Your task to perform on an android device: set an alarm Image 0: 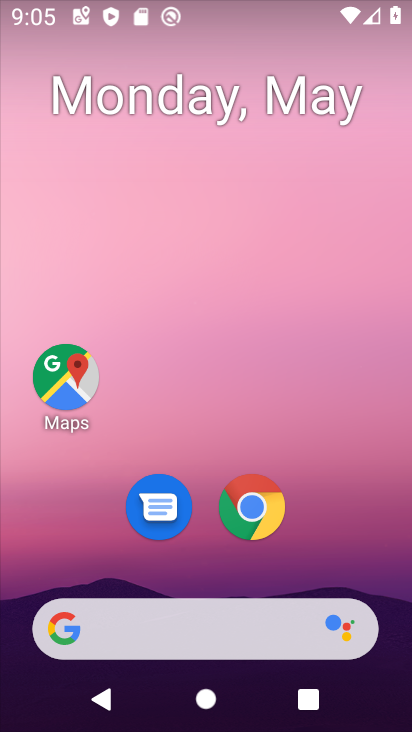
Step 0: drag from (228, 567) to (259, 60)
Your task to perform on an android device: set an alarm Image 1: 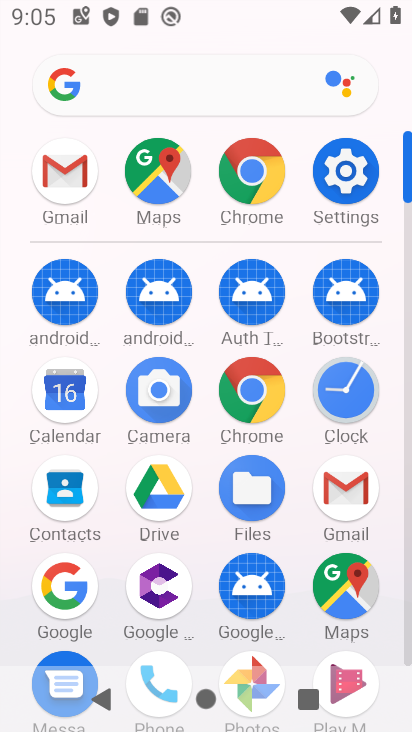
Step 1: click (342, 395)
Your task to perform on an android device: set an alarm Image 2: 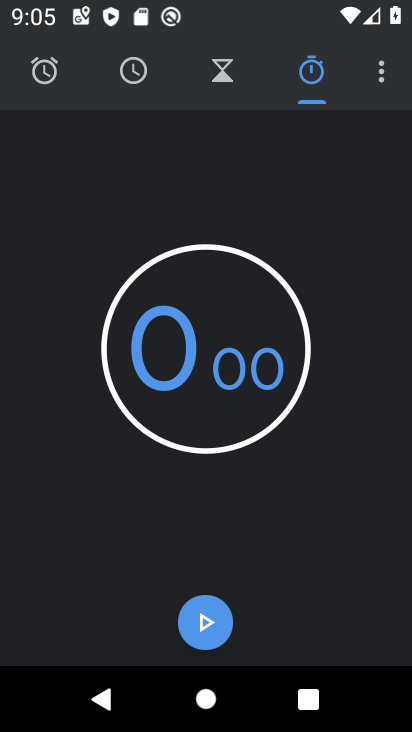
Step 2: click (57, 72)
Your task to perform on an android device: set an alarm Image 3: 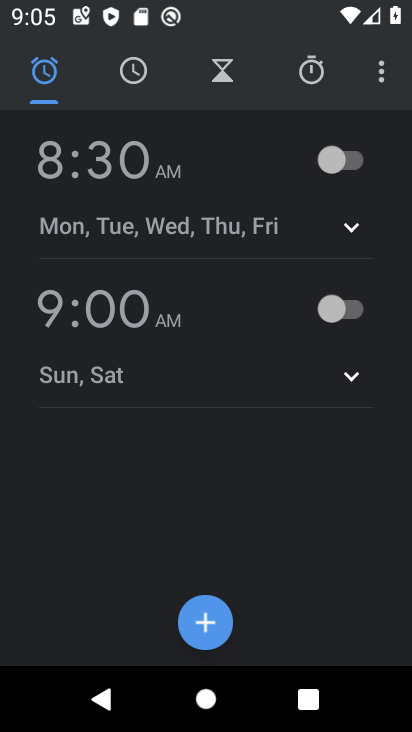
Step 3: click (343, 158)
Your task to perform on an android device: set an alarm Image 4: 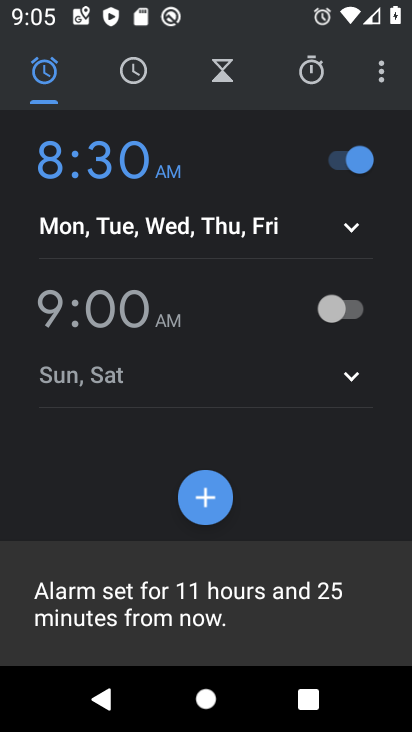
Step 4: click (120, 156)
Your task to perform on an android device: set an alarm Image 5: 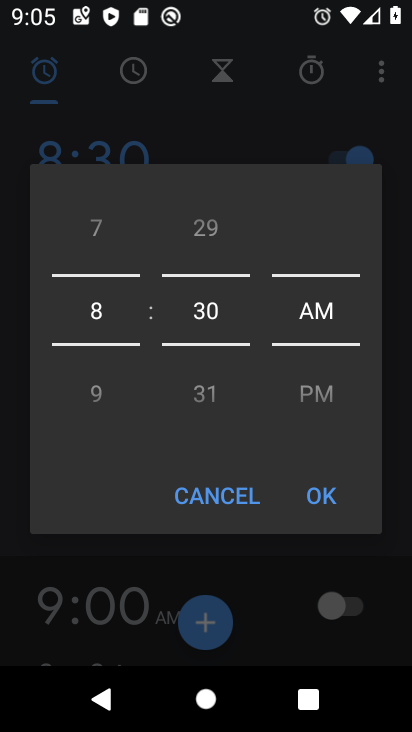
Step 5: drag from (102, 334) to (82, 488)
Your task to perform on an android device: set an alarm Image 6: 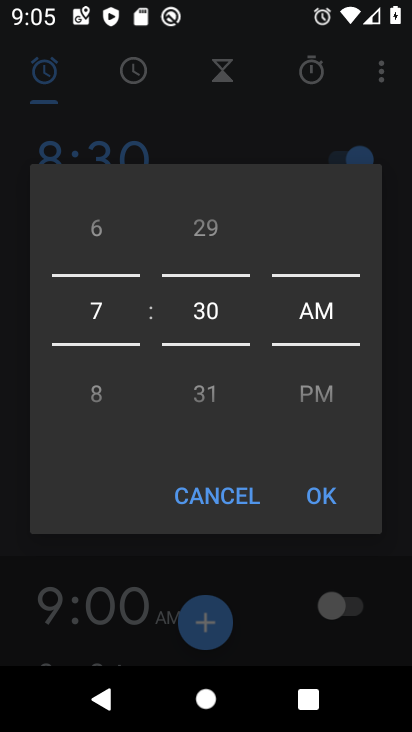
Step 6: drag from (209, 387) to (239, 118)
Your task to perform on an android device: set an alarm Image 7: 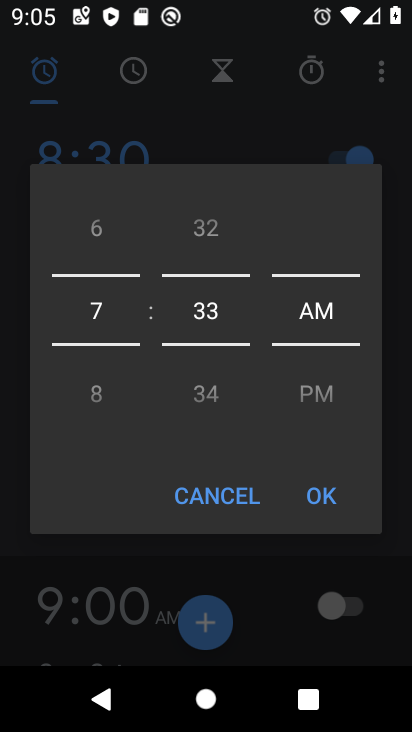
Step 7: click (326, 390)
Your task to perform on an android device: set an alarm Image 8: 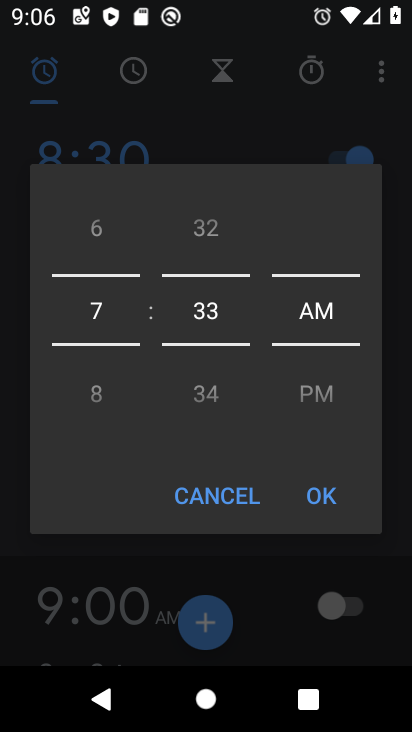
Step 8: drag from (308, 388) to (346, 69)
Your task to perform on an android device: set an alarm Image 9: 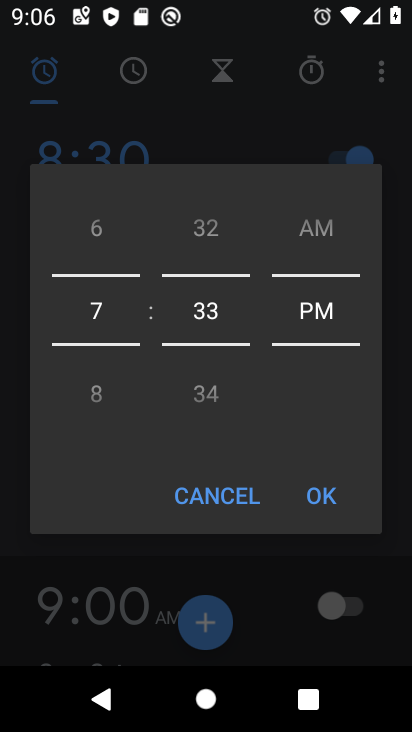
Step 9: click (323, 493)
Your task to perform on an android device: set an alarm Image 10: 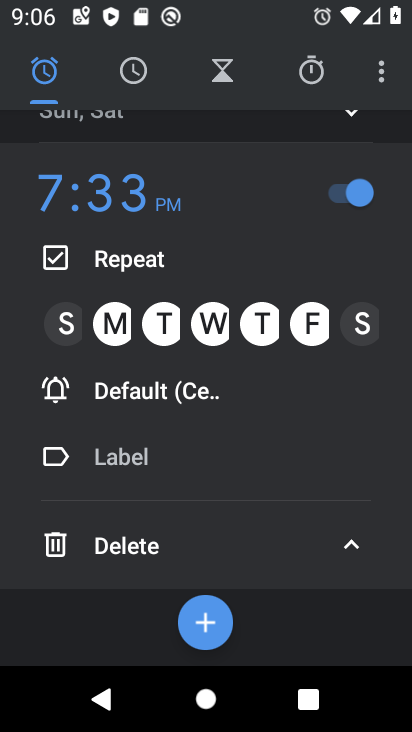
Step 10: click (214, 320)
Your task to perform on an android device: set an alarm Image 11: 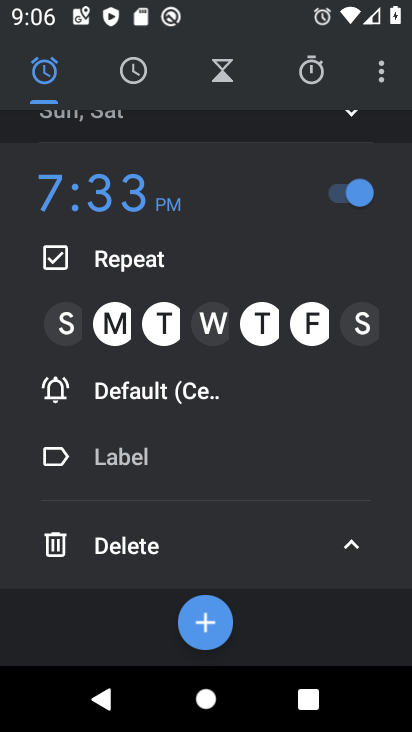
Step 11: task complete